Your task to perform on an android device: toggle pop-ups in chrome Image 0: 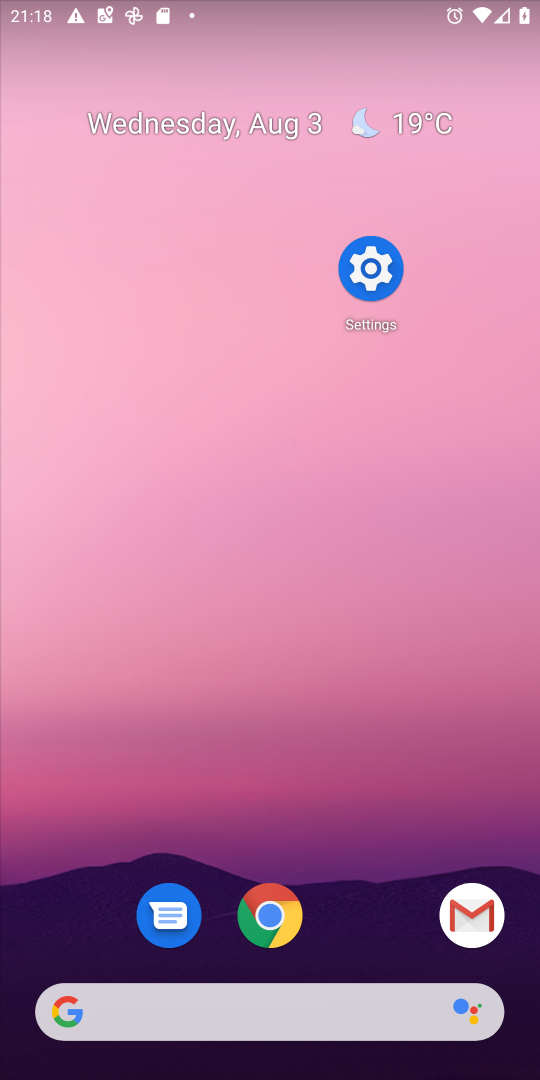
Step 0: press home button
Your task to perform on an android device: toggle pop-ups in chrome Image 1: 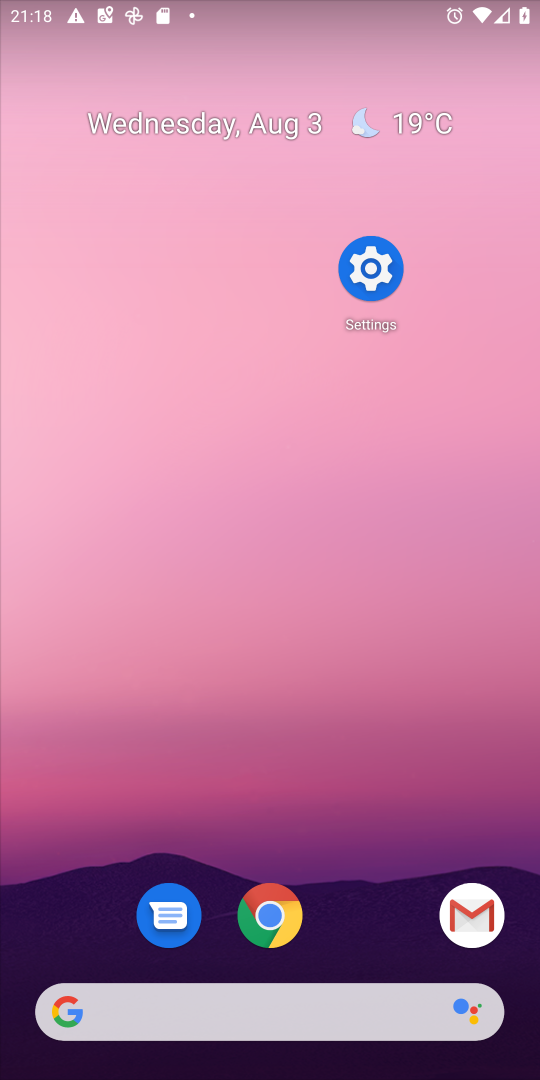
Step 1: drag from (357, 1042) to (284, 208)
Your task to perform on an android device: toggle pop-ups in chrome Image 2: 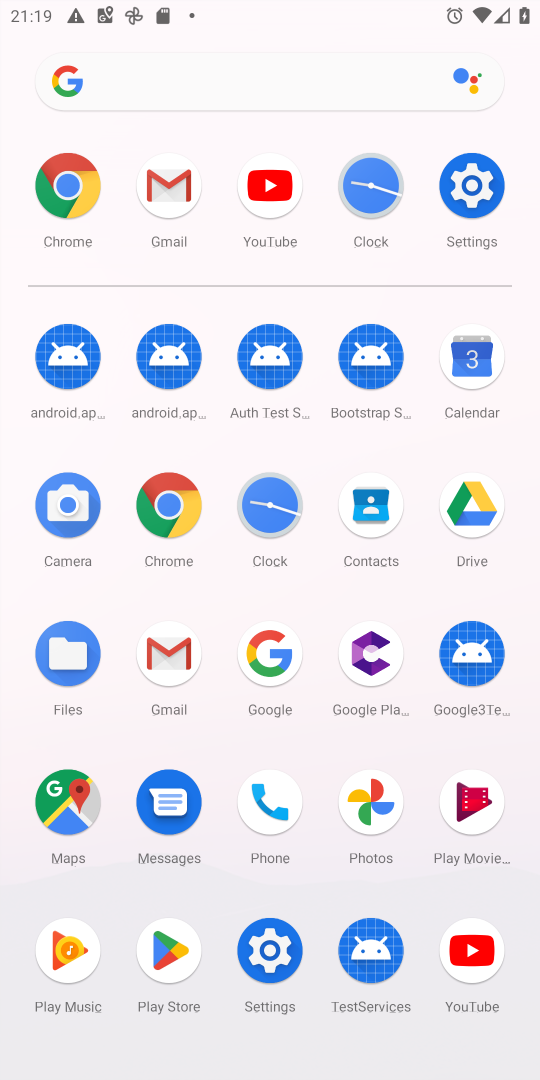
Step 2: click (50, 161)
Your task to perform on an android device: toggle pop-ups in chrome Image 3: 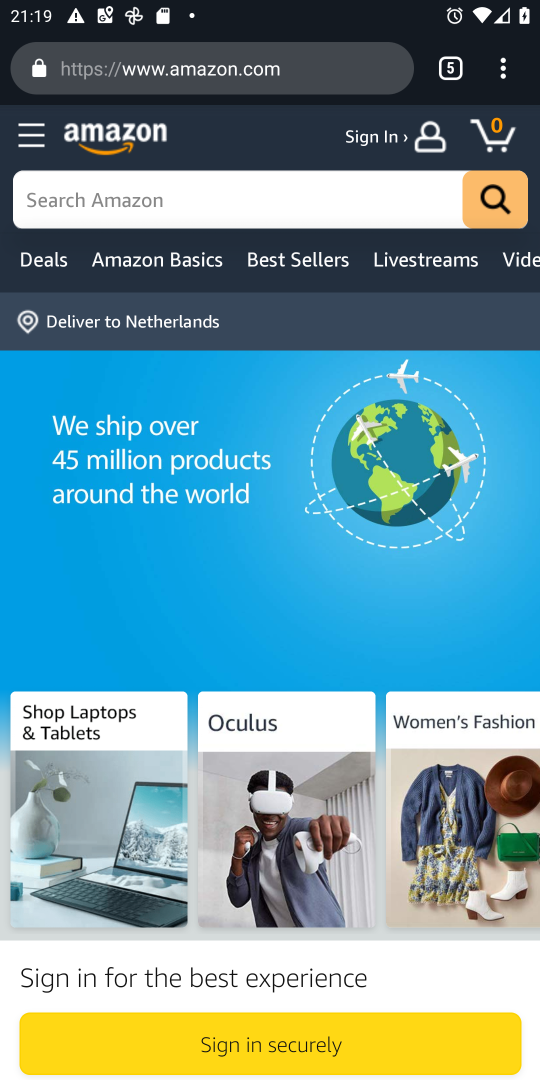
Step 3: click (509, 81)
Your task to perform on an android device: toggle pop-ups in chrome Image 4: 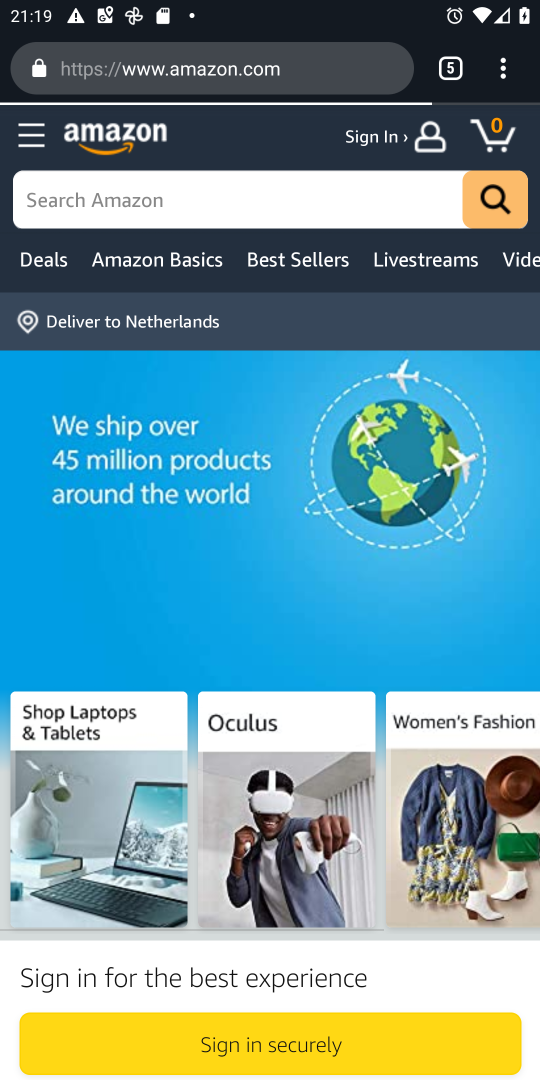
Step 4: click (492, 90)
Your task to perform on an android device: toggle pop-ups in chrome Image 5: 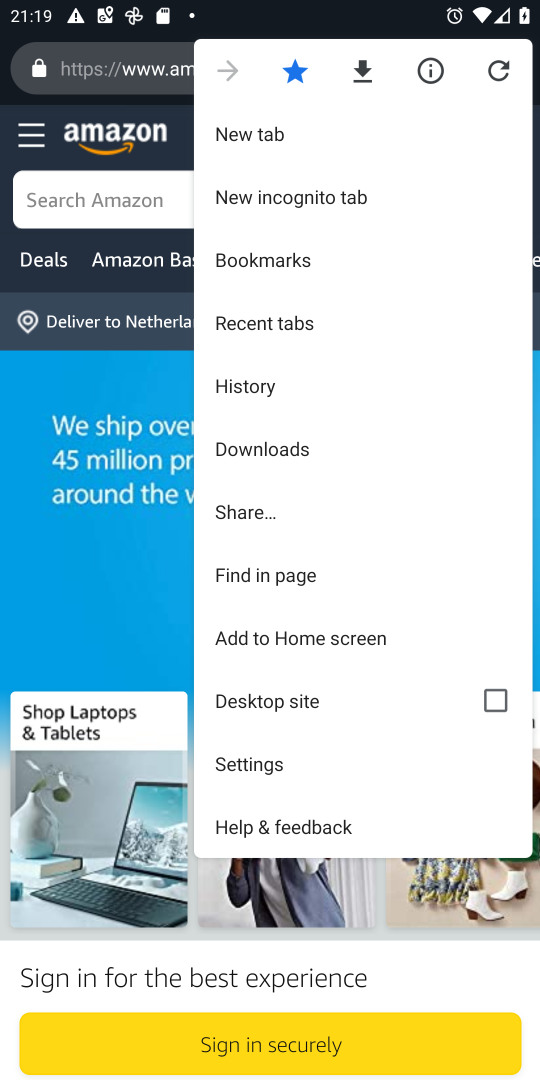
Step 5: click (268, 746)
Your task to perform on an android device: toggle pop-ups in chrome Image 6: 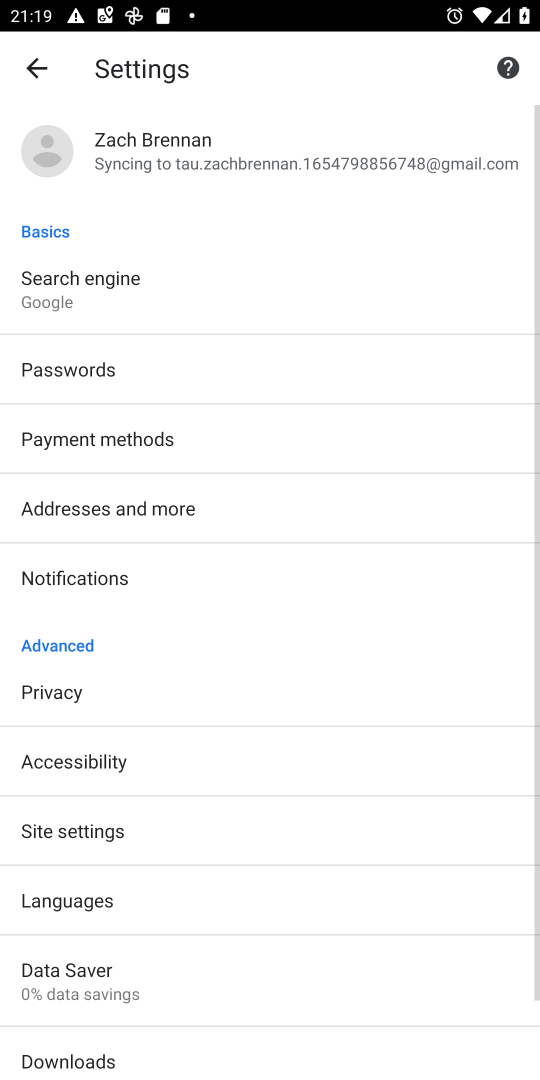
Step 6: click (142, 858)
Your task to perform on an android device: toggle pop-ups in chrome Image 7: 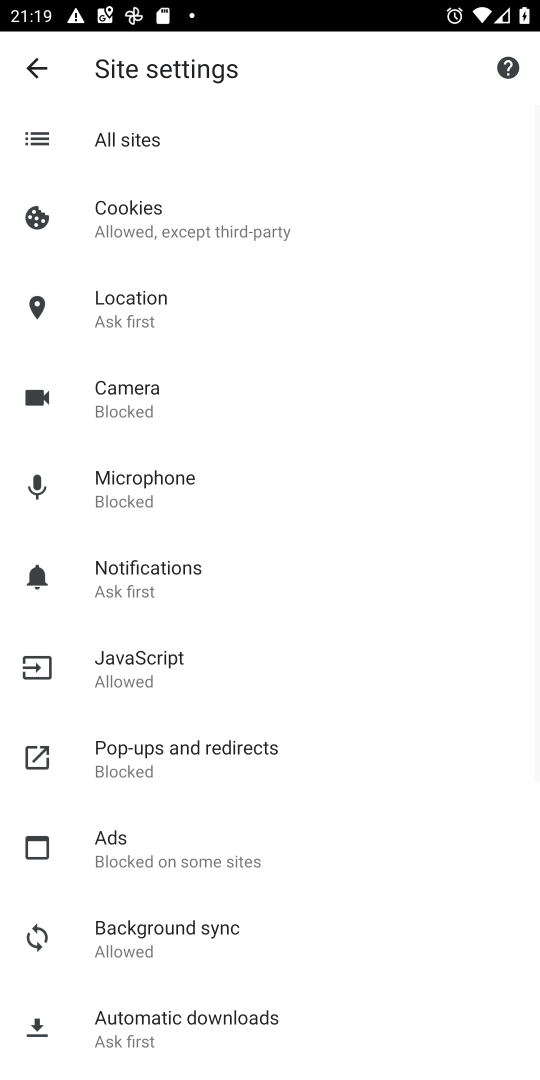
Step 7: click (226, 759)
Your task to perform on an android device: toggle pop-ups in chrome Image 8: 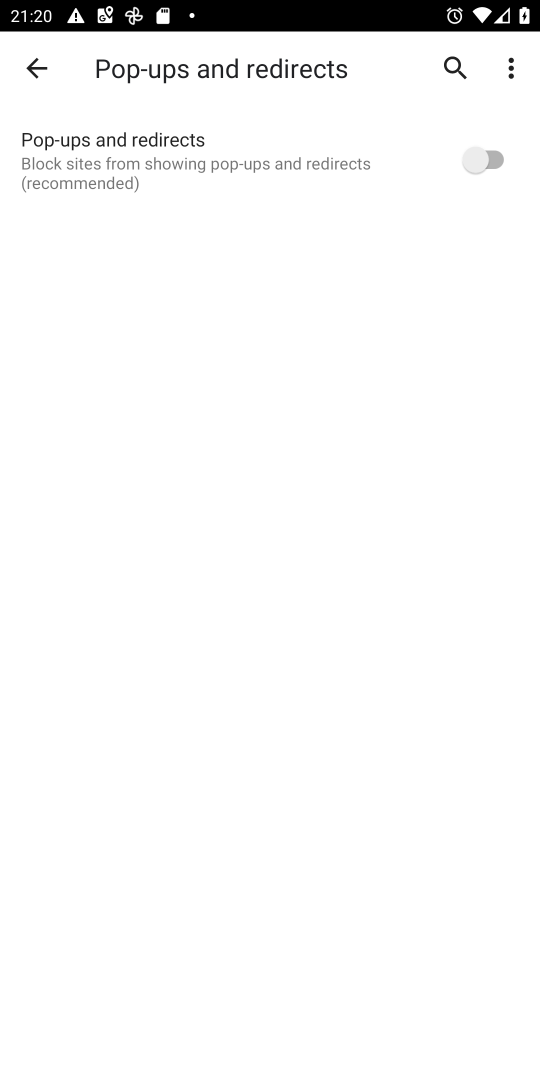
Step 8: task complete